Your task to perform on an android device: Go to battery settings Image 0: 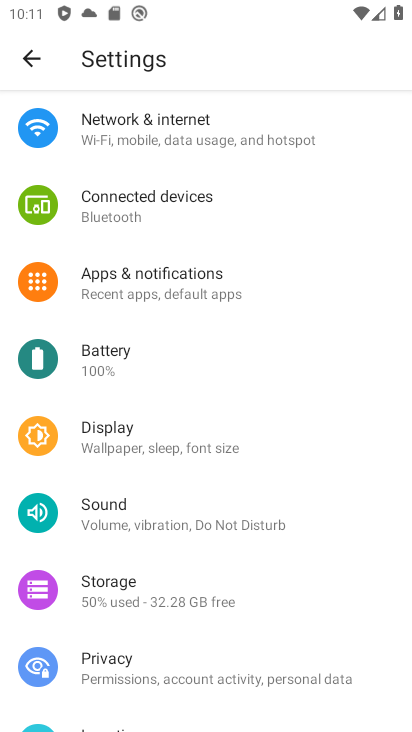
Step 0: click (110, 347)
Your task to perform on an android device: Go to battery settings Image 1: 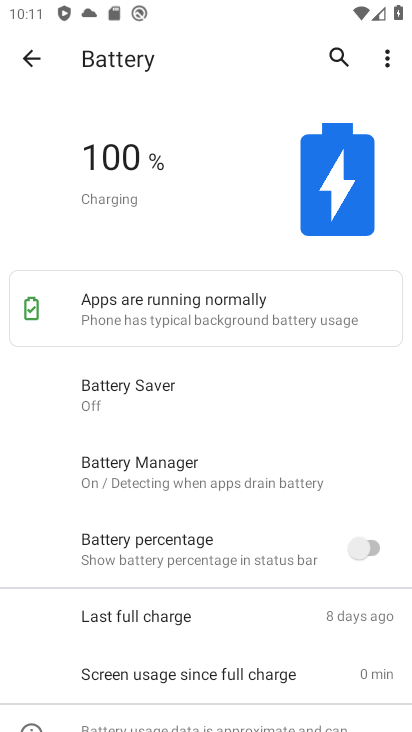
Step 1: task complete